Your task to perform on an android device: Open Google Chrome and open the bookmarks view Image 0: 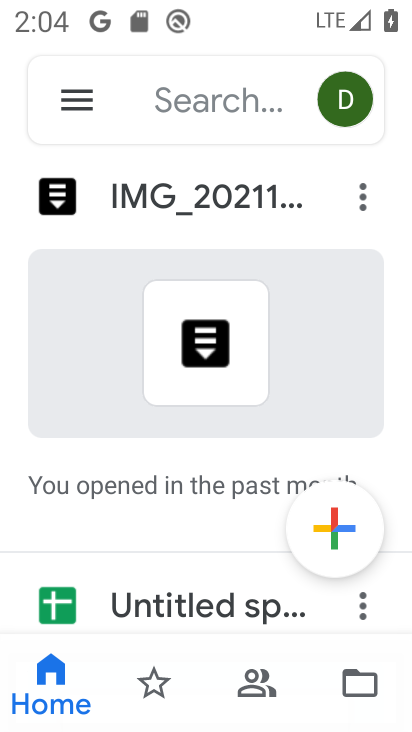
Step 0: press home button
Your task to perform on an android device: Open Google Chrome and open the bookmarks view Image 1: 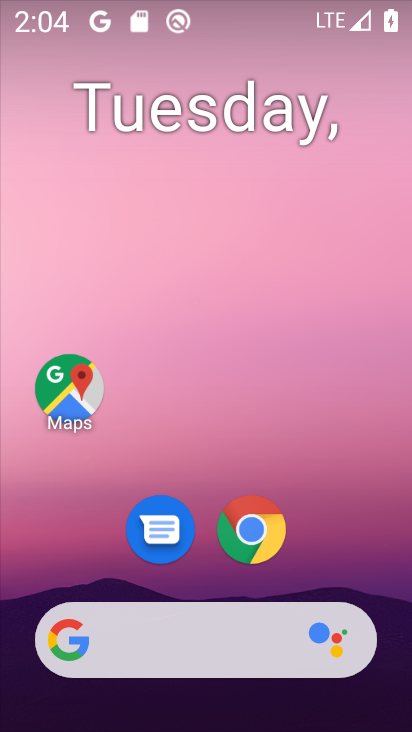
Step 1: click (235, 523)
Your task to perform on an android device: Open Google Chrome and open the bookmarks view Image 2: 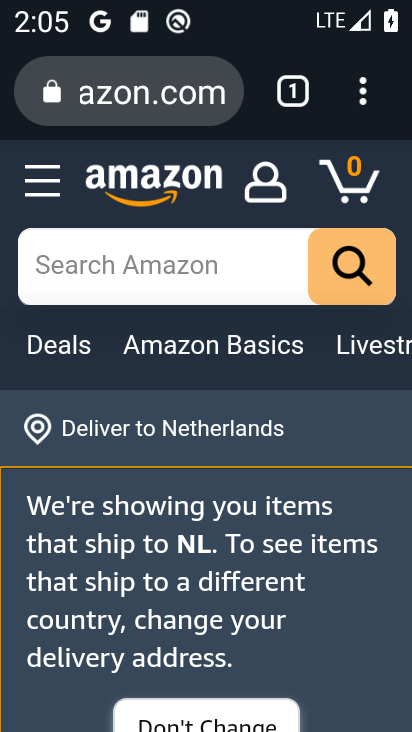
Step 2: click (364, 91)
Your task to perform on an android device: Open Google Chrome and open the bookmarks view Image 3: 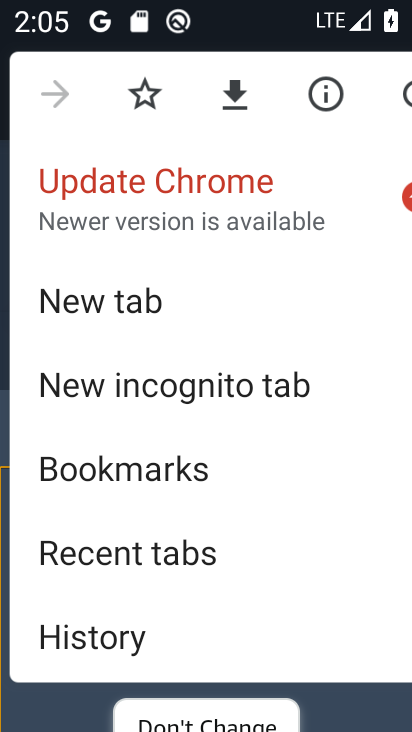
Step 3: click (126, 464)
Your task to perform on an android device: Open Google Chrome and open the bookmarks view Image 4: 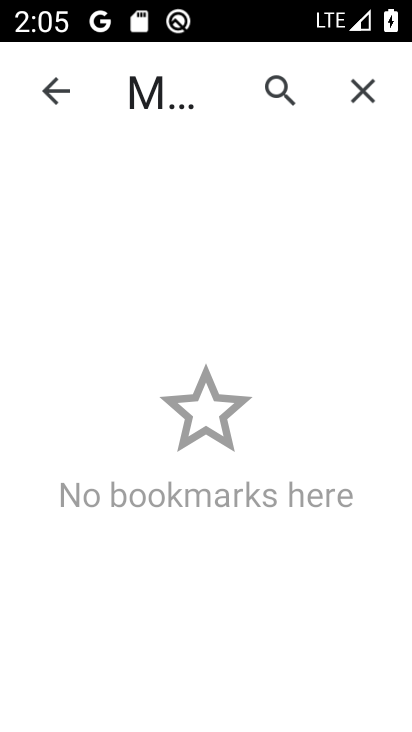
Step 4: task complete